Your task to perform on an android device: see creations saved in the google photos Image 0: 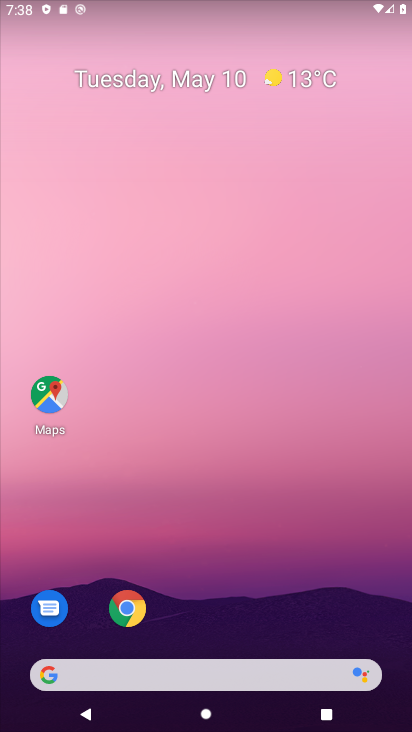
Step 0: press home button
Your task to perform on an android device: see creations saved in the google photos Image 1: 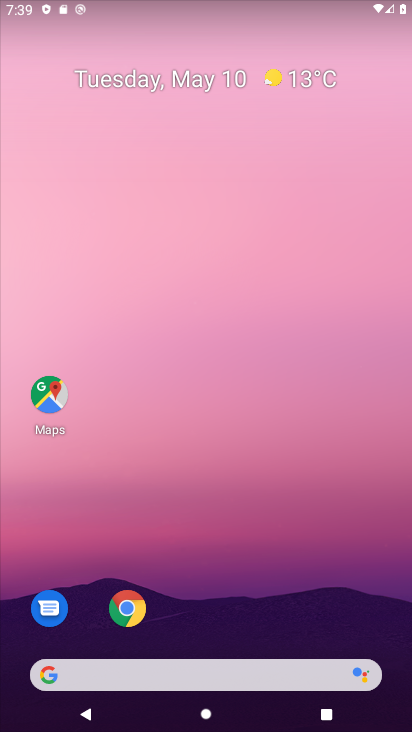
Step 1: drag from (186, 679) to (292, 100)
Your task to perform on an android device: see creations saved in the google photos Image 2: 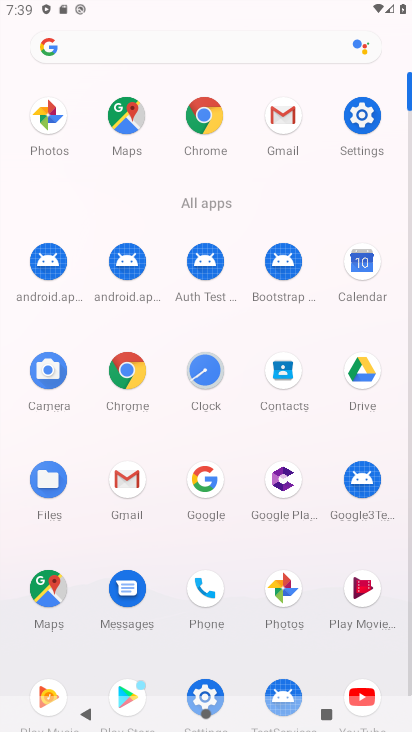
Step 2: click (287, 590)
Your task to perform on an android device: see creations saved in the google photos Image 3: 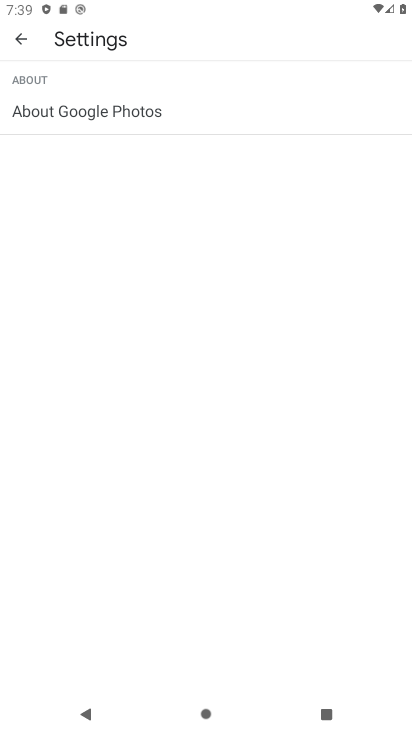
Step 3: click (20, 39)
Your task to perform on an android device: see creations saved in the google photos Image 4: 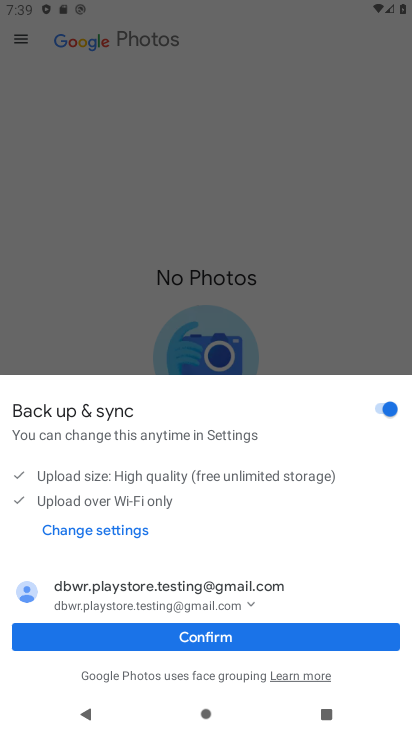
Step 4: click (232, 638)
Your task to perform on an android device: see creations saved in the google photos Image 5: 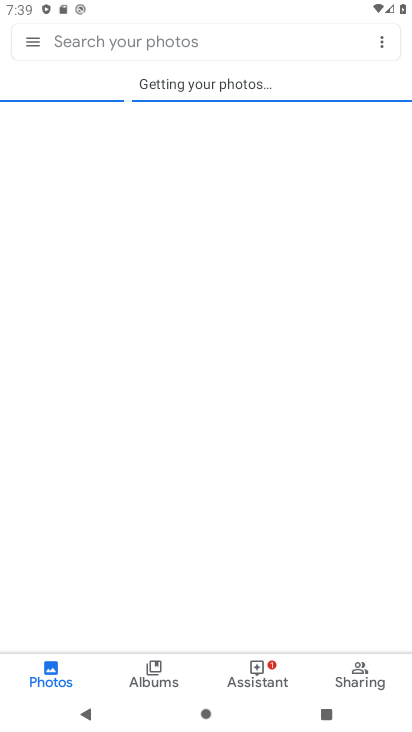
Step 5: click (157, 681)
Your task to perform on an android device: see creations saved in the google photos Image 6: 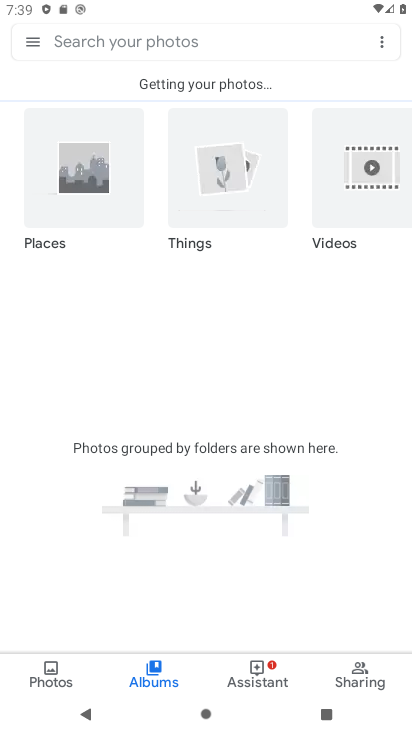
Step 6: click (175, 33)
Your task to perform on an android device: see creations saved in the google photos Image 7: 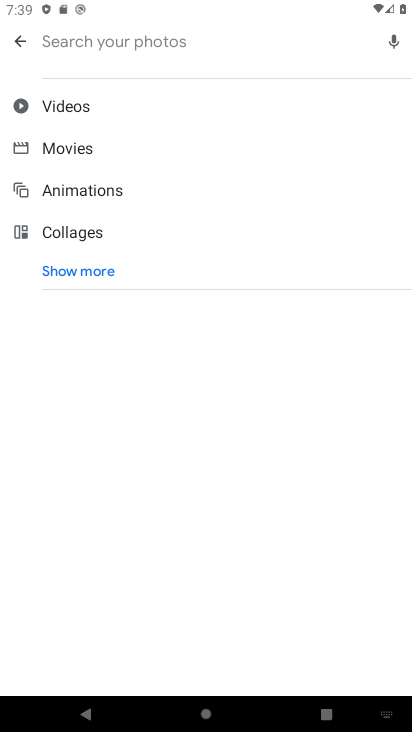
Step 7: click (79, 268)
Your task to perform on an android device: see creations saved in the google photos Image 8: 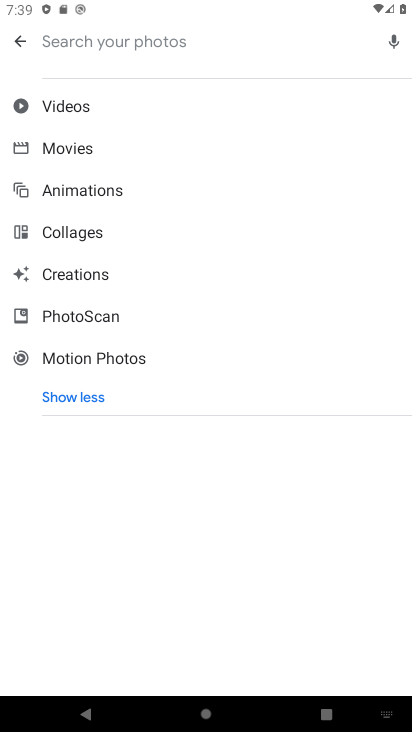
Step 8: click (82, 270)
Your task to perform on an android device: see creations saved in the google photos Image 9: 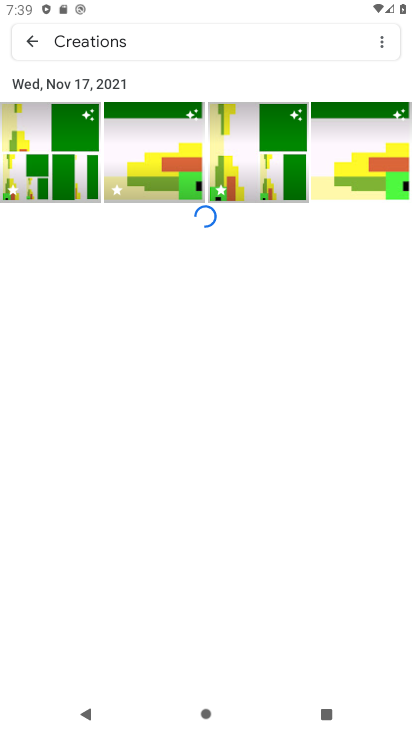
Step 9: task complete